Your task to perform on an android device: change the clock style Image 0: 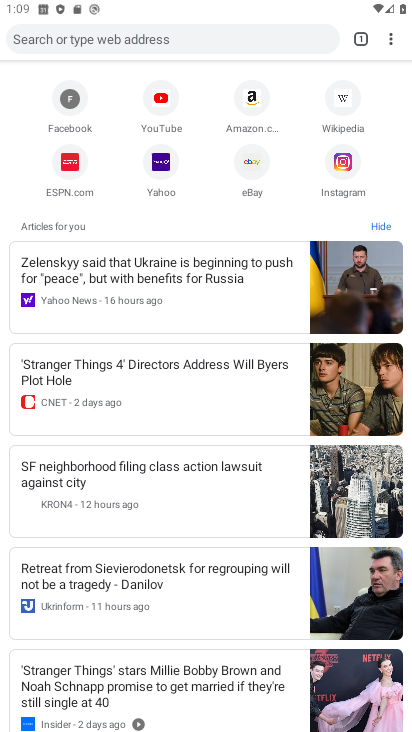
Step 0: press home button
Your task to perform on an android device: change the clock style Image 1: 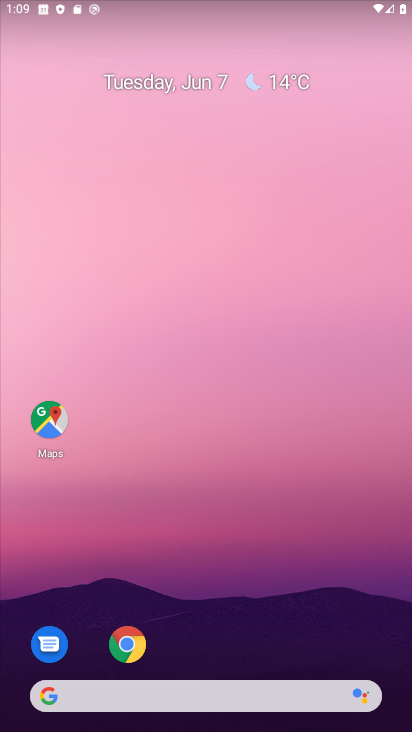
Step 1: drag from (168, 724) to (142, 27)
Your task to perform on an android device: change the clock style Image 2: 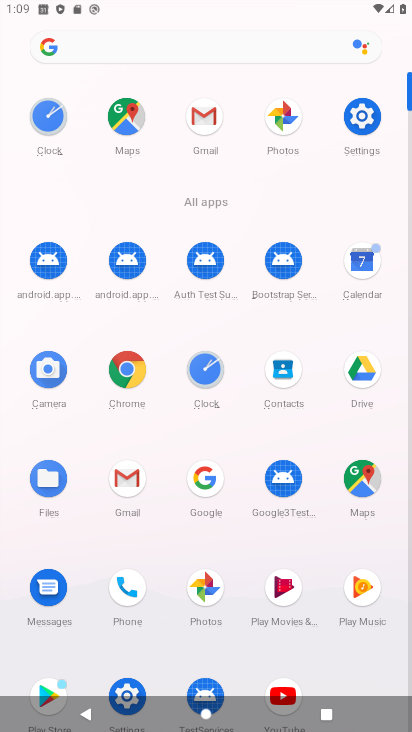
Step 2: click (49, 129)
Your task to perform on an android device: change the clock style Image 3: 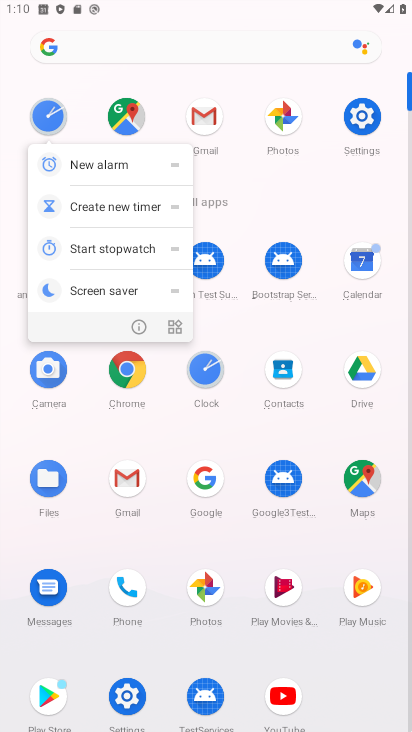
Step 3: click (48, 120)
Your task to perform on an android device: change the clock style Image 4: 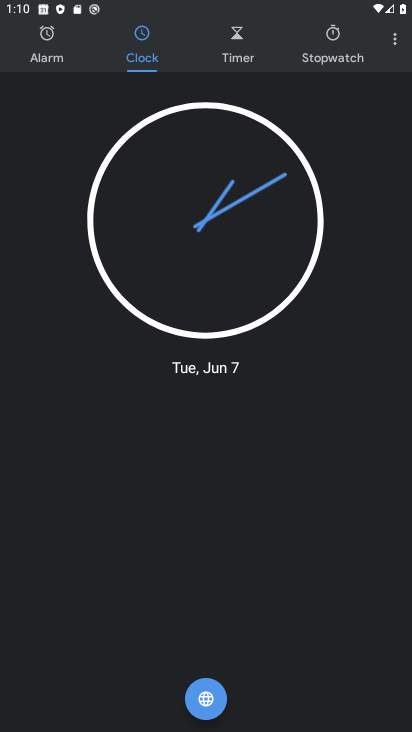
Step 4: click (389, 40)
Your task to perform on an android device: change the clock style Image 5: 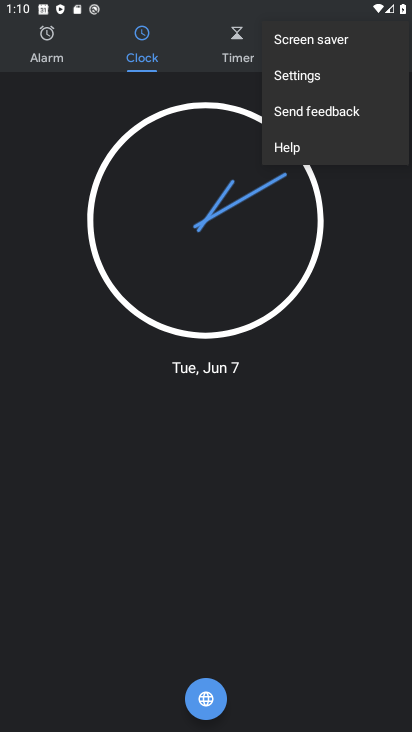
Step 5: click (322, 75)
Your task to perform on an android device: change the clock style Image 6: 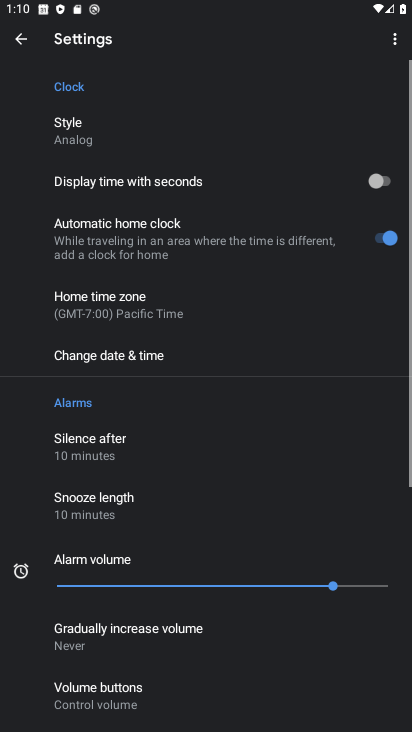
Step 6: click (96, 152)
Your task to perform on an android device: change the clock style Image 7: 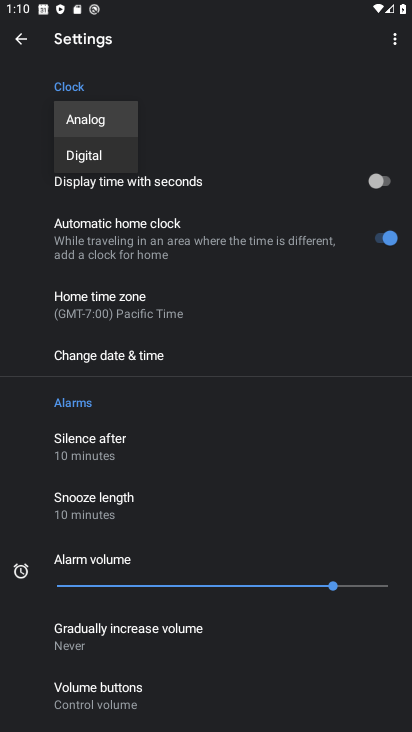
Step 7: click (99, 157)
Your task to perform on an android device: change the clock style Image 8: 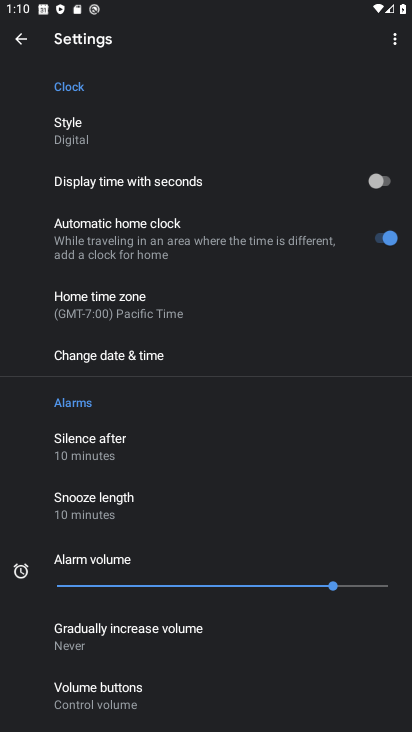
Step 8: task complete